Your task to perform on an android device: search for starred emails in the gmail app Image 0: 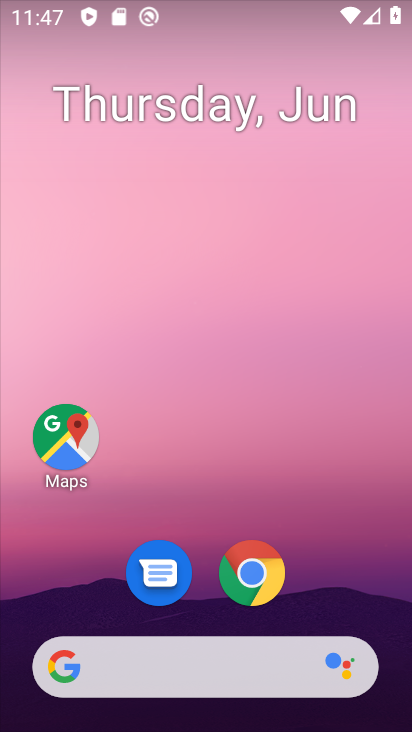
Step 0: task complete